Your task to perform on an android device: See recent photos Image 0: 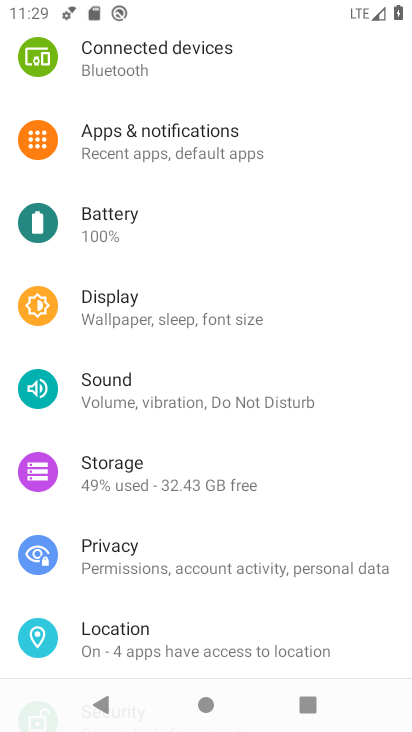
Step 0: press home button
Your task to perform on an android device: See recent photos Image 1: 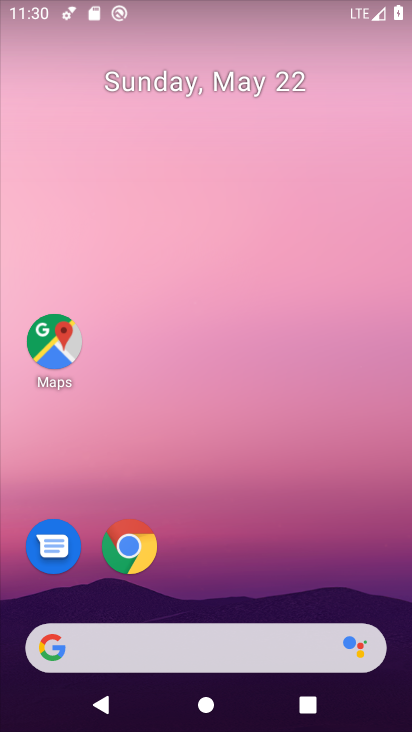
Step 1: drag from (261, 631) to (247, 232)
Your task to perform on an android device: See recent photos Image 2: 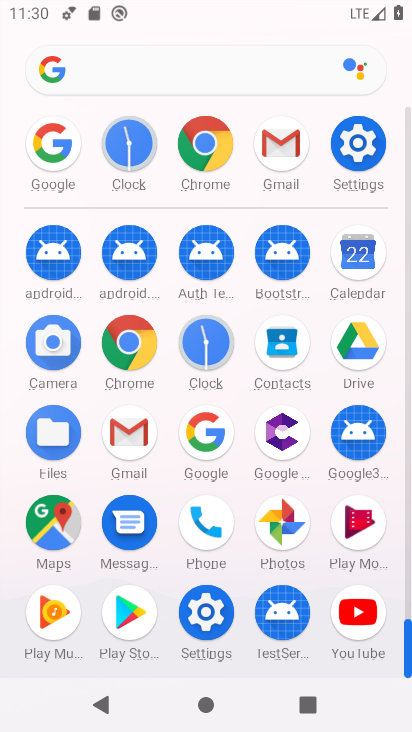
Step 2: click (281, 522)
Your task to perform on an android device: See recent photos Image 3: 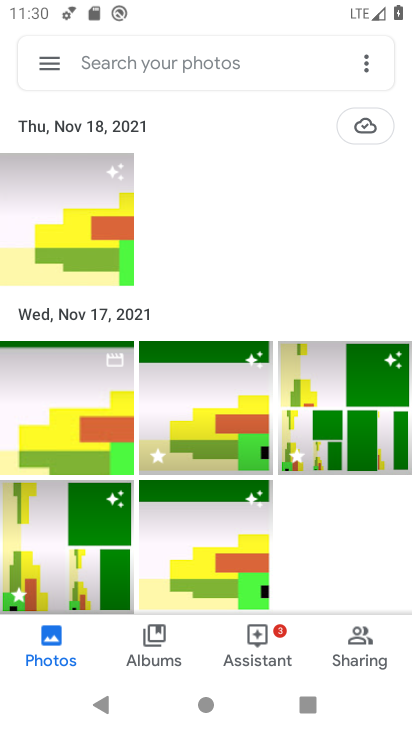
Step 3: task complete